Your task to perform on an android device: Is it going to rain this weekend? Image 0: 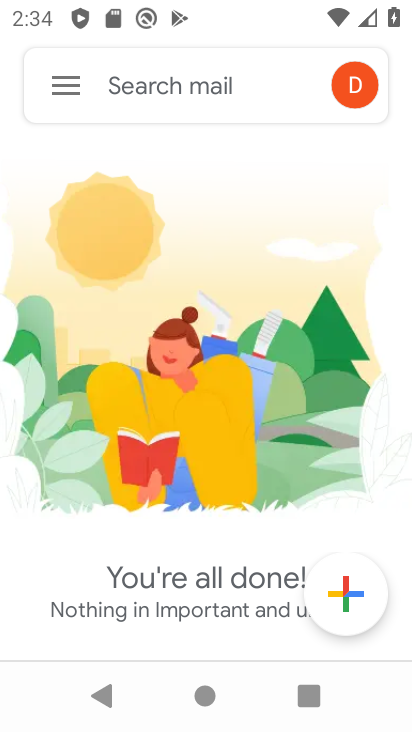
Step 0: press back button
Your task to perform on an android device: Is it going to rain this weekend? Image 1: 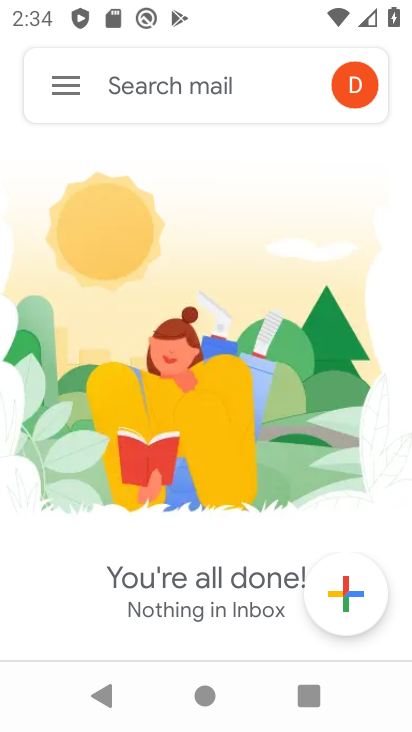
Step 1: click (410, 383)
Your task to perform on an android device: Is it going to rain this weekend? Image 2: 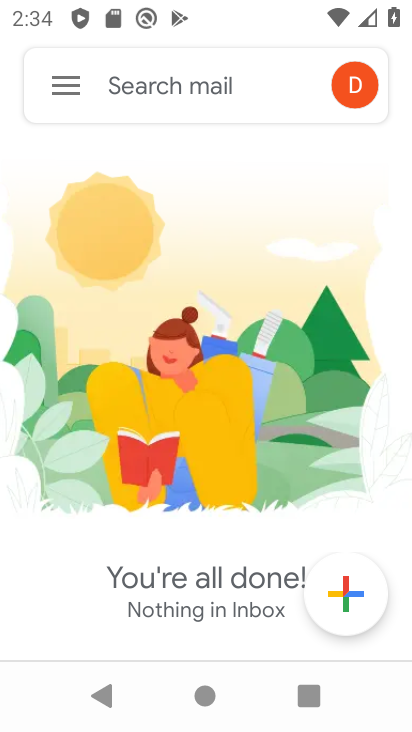
Step 2: task complete